Your task to perform on an android device: Open the calendar app, open the side menu, and click the "Day" option Image 0: 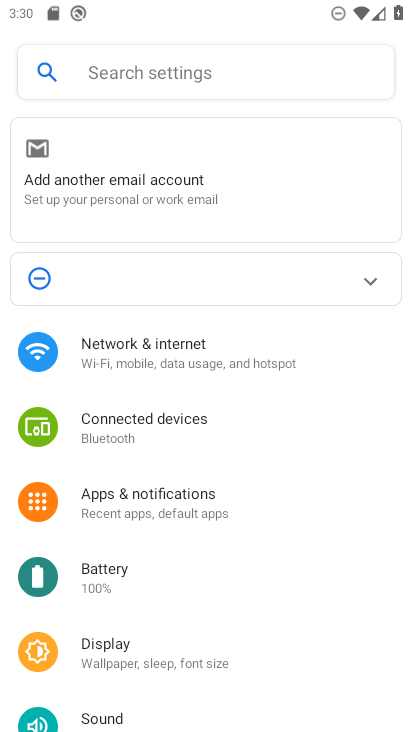
Step 0: drag from (221, 692) to (337, 162)
Your task to perform on an android device: Open the calendar app, open the side menu, and click the "Day" option Image 1: 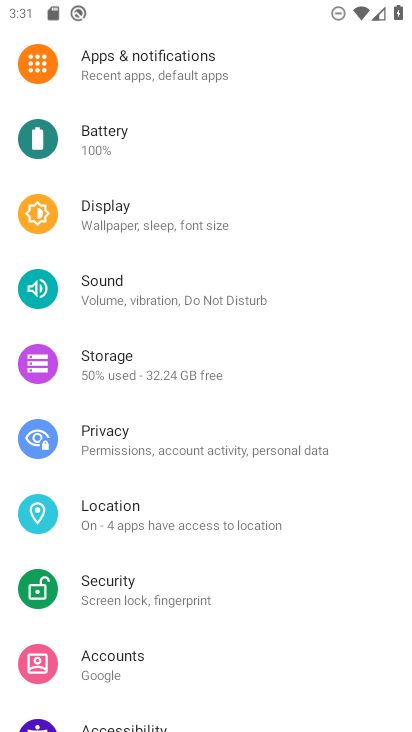
Step 1: press home button
Your task to perform on an android device: Open the calendar app, open the side menu, and click the "Day" option Image 2: 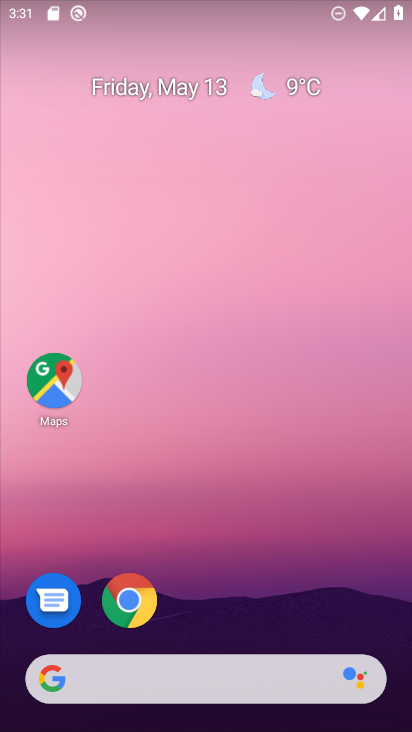
Step 2: drag from (205, 536) to (321, 122)
Your task to perform on an android device: Open the calendar app, open the side menu, and click the "Day" option Image 3: 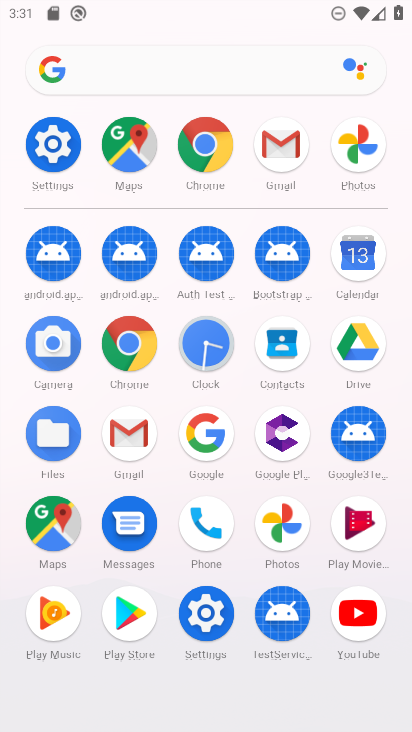
Step 3: click (356, 260)
Your task to perform on an android device: Open the calendar app, open the side menu, and click the "Day" option Image 4: 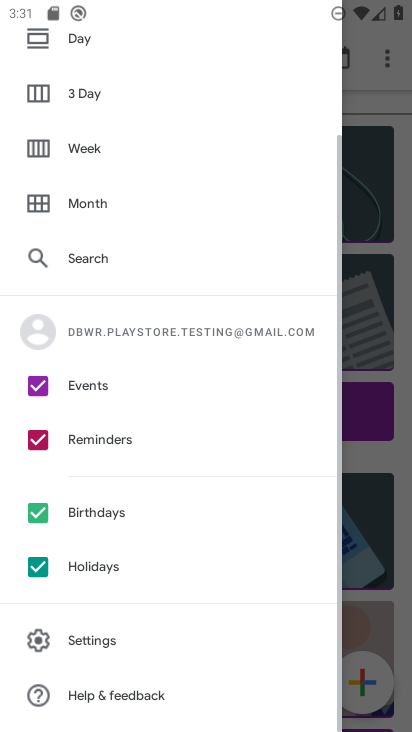
Step 4: click (84, 37)
Your task to perform on an android device: Open the calendar app, open the side menu, and click the "Day" option Image 5: 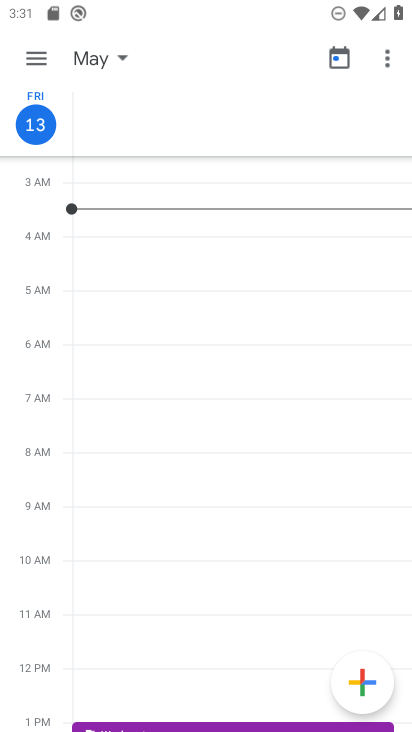
Step 5: drag from (198, 557) to (253, 204)
Your task to perform on an android device: Open the calendar app, open the side menu, and click the "Day" option Image 6: 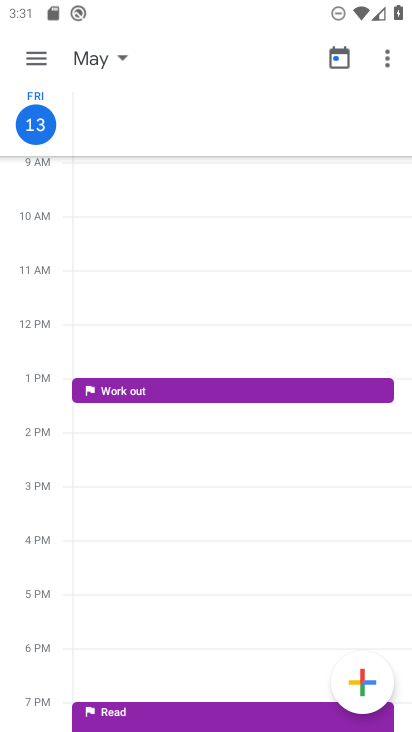
Step 6: click (40, 57)
Your task to perform on an android device: Open the calendar app, open the side menu, and click the "Day" option Image 7: 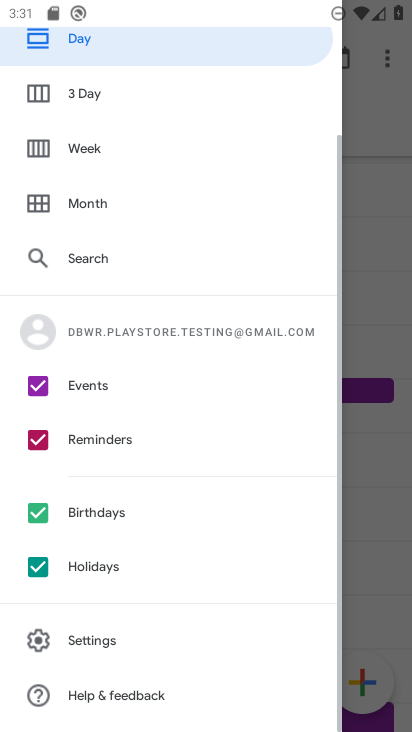
Step 7: click (105, 49)
Your task to perform on an android device: Open the calendar app, open the side menu, and click the "Day" option Image 8: 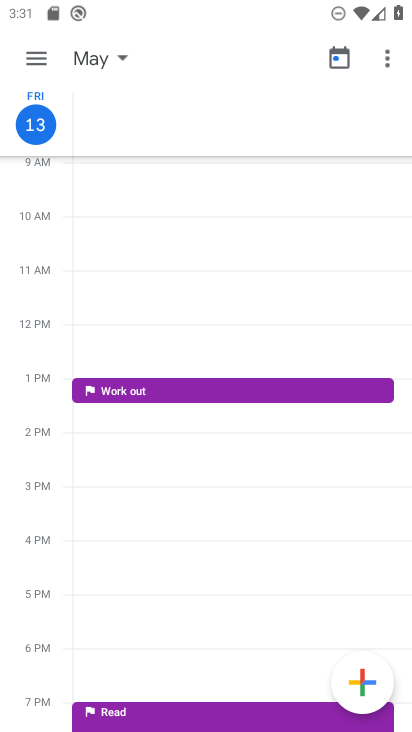
Step 8: task complete